Your task to perform on an android device: check google app version Image 0: 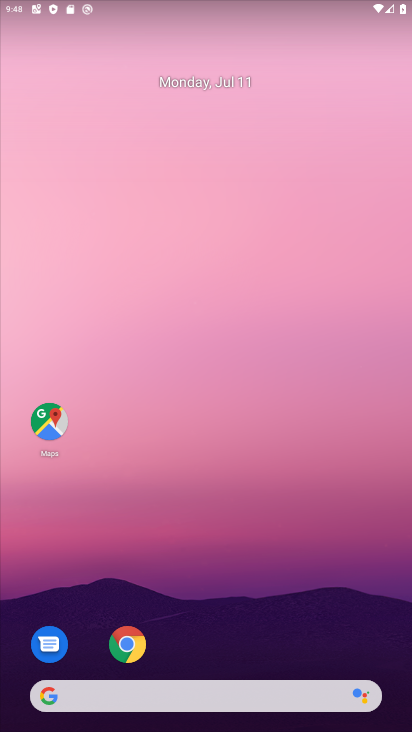
Step 0: drag from (228, 638) to (233, 181)
Your task to perform on an android device: check google app version Image 1: 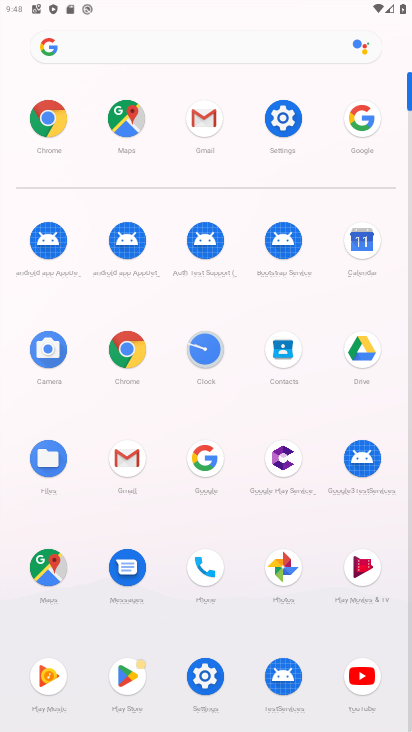
Step 1: click (359, 124)
Your task to perform on an android device: check google app version Image 2: 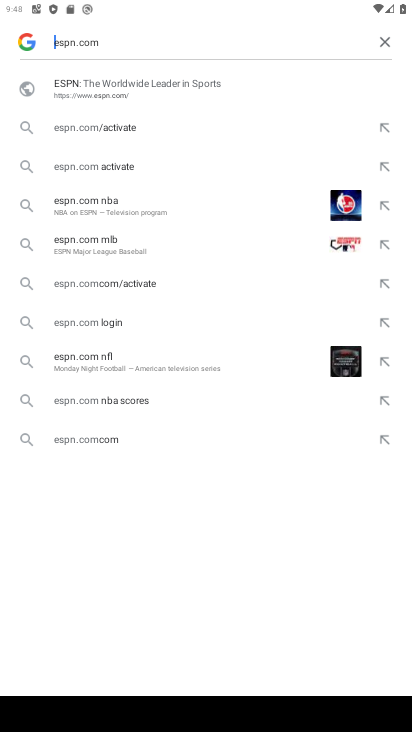
Step 2: click (381, 44)
Your task to perform on an android device: check google app version Image 3: 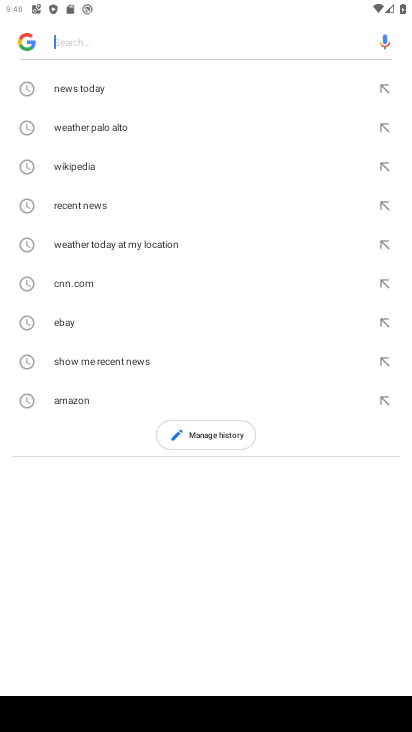
Step 3: press back button
Your task to perform on an android device: check google app version Image 4: 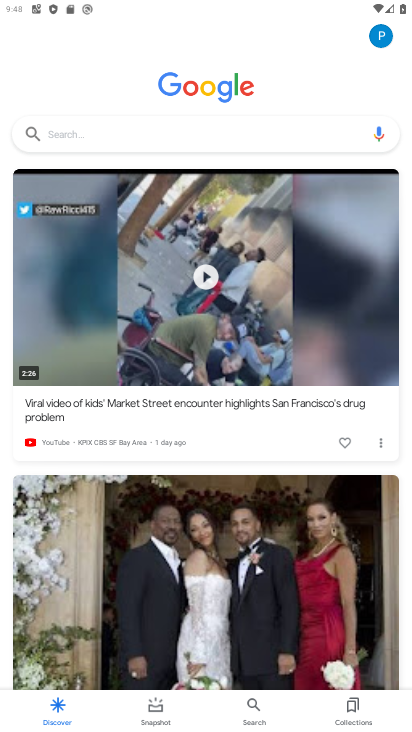
Step 4: click (380, 34)
Your task to perform on an android device: check google app version Image 5: 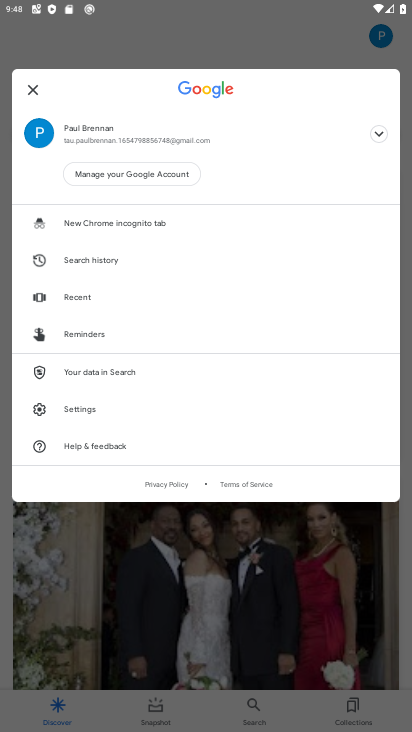
Step 5: click (79, 413)
Your task to perform on an android device: check google app version Image 6: 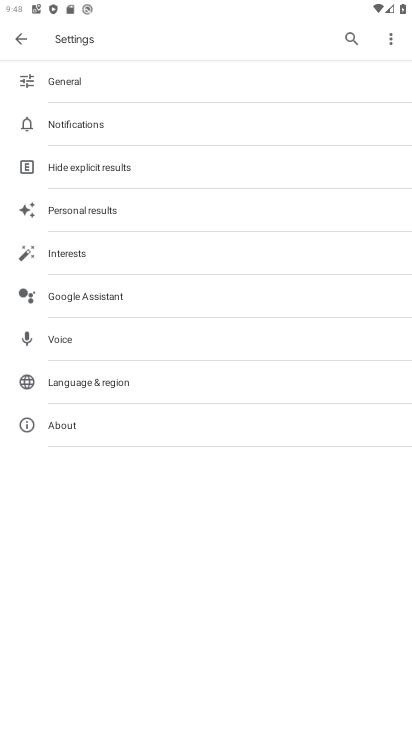
Step 6: click (95, 423)
Your task to perform on an android device: check google app version Image 7: 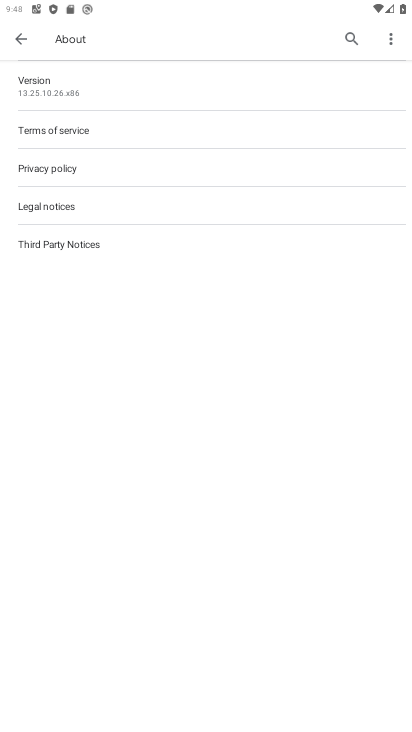
Step 7: task complete